Your task to perform on an android device: change notification settings in the gmail app Image 0: 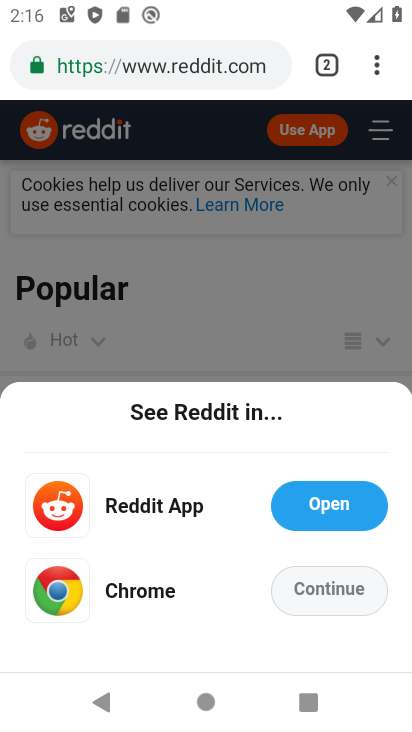
Step 0: press home button
Your task to perform on an android device: change notification settings in the gmail app Image 1: 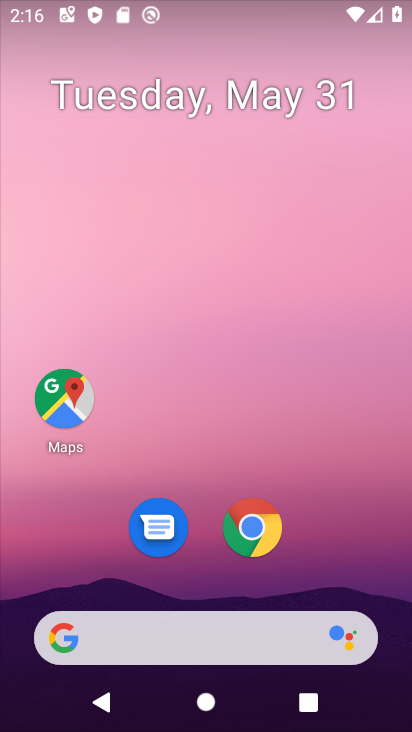
Step 1: drag from (369, 547) to (341, 62)
Your task to perform on an android device: change notification settings in the gmail app Image 2: 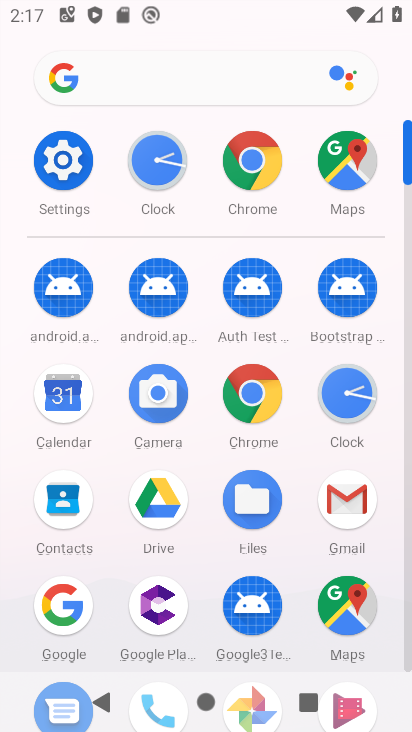
Step 2: click (340, 500)
Your task to perform on an android device: change notification settings in the gmail app Image 3: 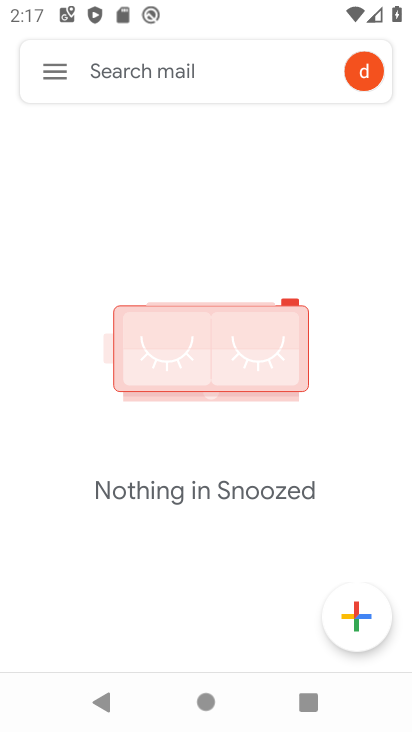
Step 3: click (62, 60)
Your task to perform on an android device: change notification settings in the gmail app Image 4: 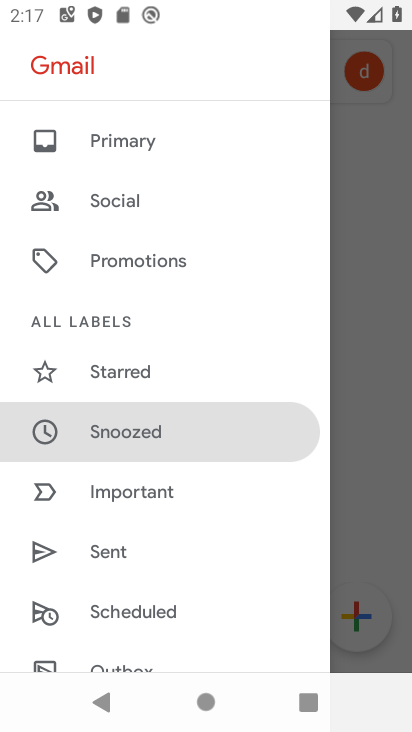
Step 4: drag from (198, 566) to (196, 161)
Your task to perform on an android device: change notification settings in the gmail app Image 5: 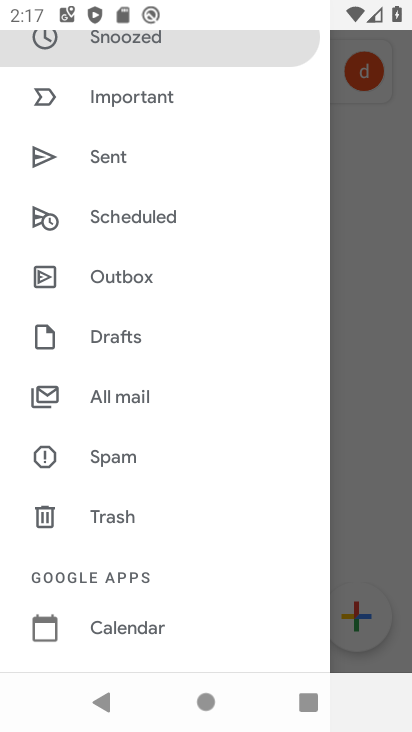
Step 5: drag from (179, 583) to (194, 220)
Your task to perform on an android device: change notification settings in the gmail app Image 6: 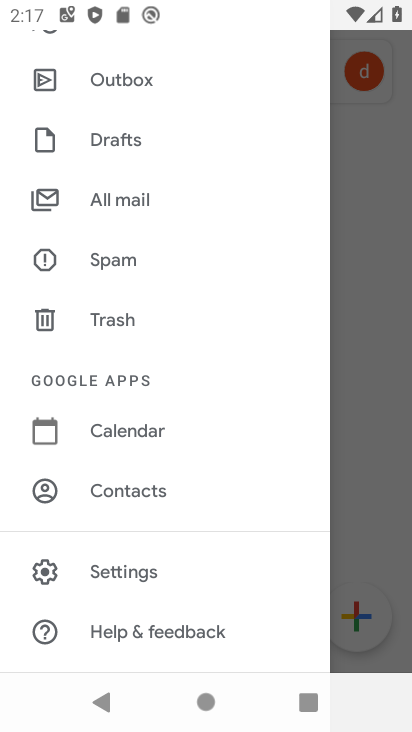
Step 6: click (127, 561)
Your task to perform on an android device: change notification settings in the gmail app Image 7: 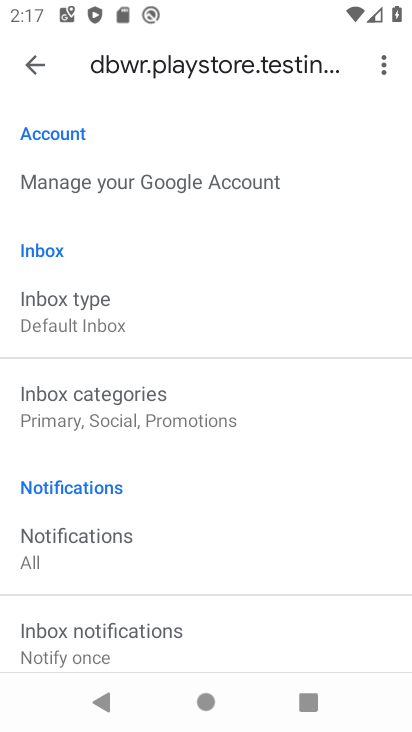
Step 7: click (72, 561)
Your task to perform on an android device: change notification settings in the gmail app Image 8: 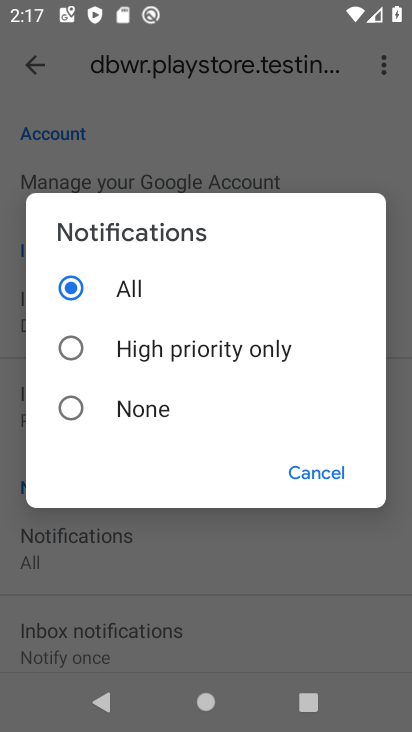
Step 8: click (82, 339)
Your task to perform on an android device: change notification settings in the gmail app Image 9: 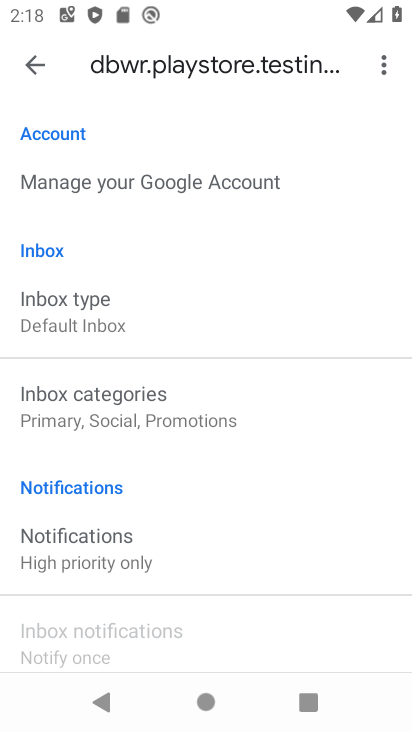
Step 9: task complete